Your task to perform on an android device: Show the shopping cart on costco. Add energizer triple a to the cart on costco Image 0: 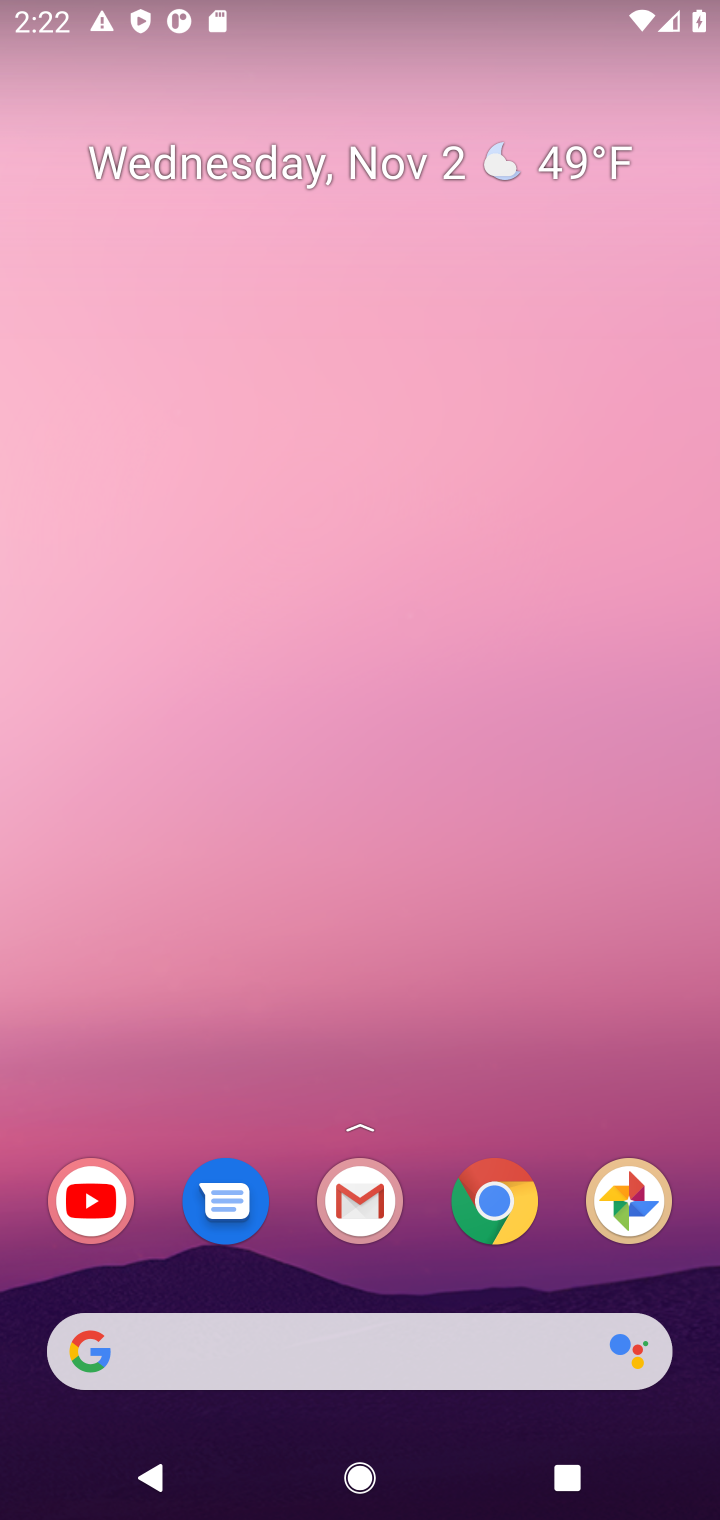
Step 0: click (476, 1216)
Your task to perform on an android device: Show the shopping cart on costco. Add energizer triple a to the cart on costco Image 1: 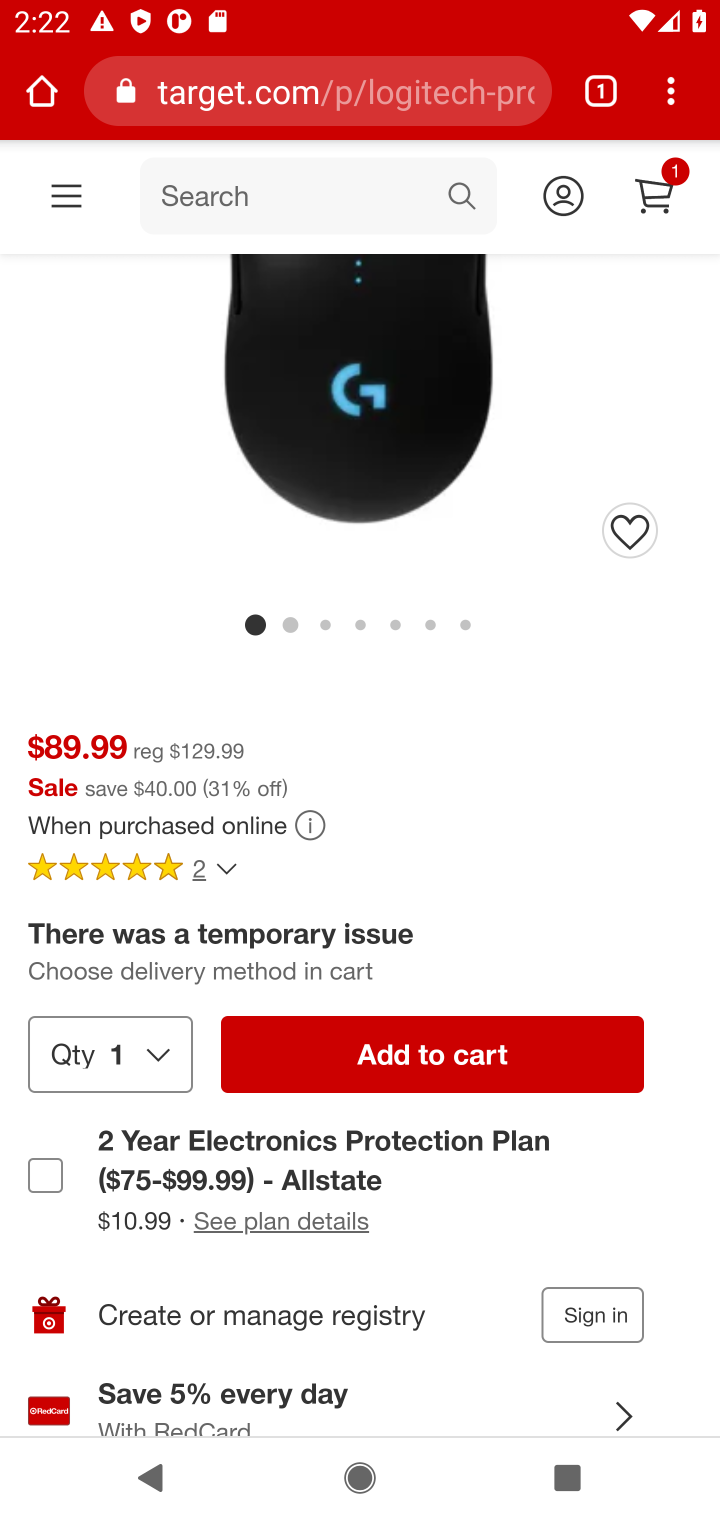
Step 1: click (372, 102)
Your task to perform on an android device: Show the shopping cart on costco. Add energizer triple a to the cart on costco Image 2: 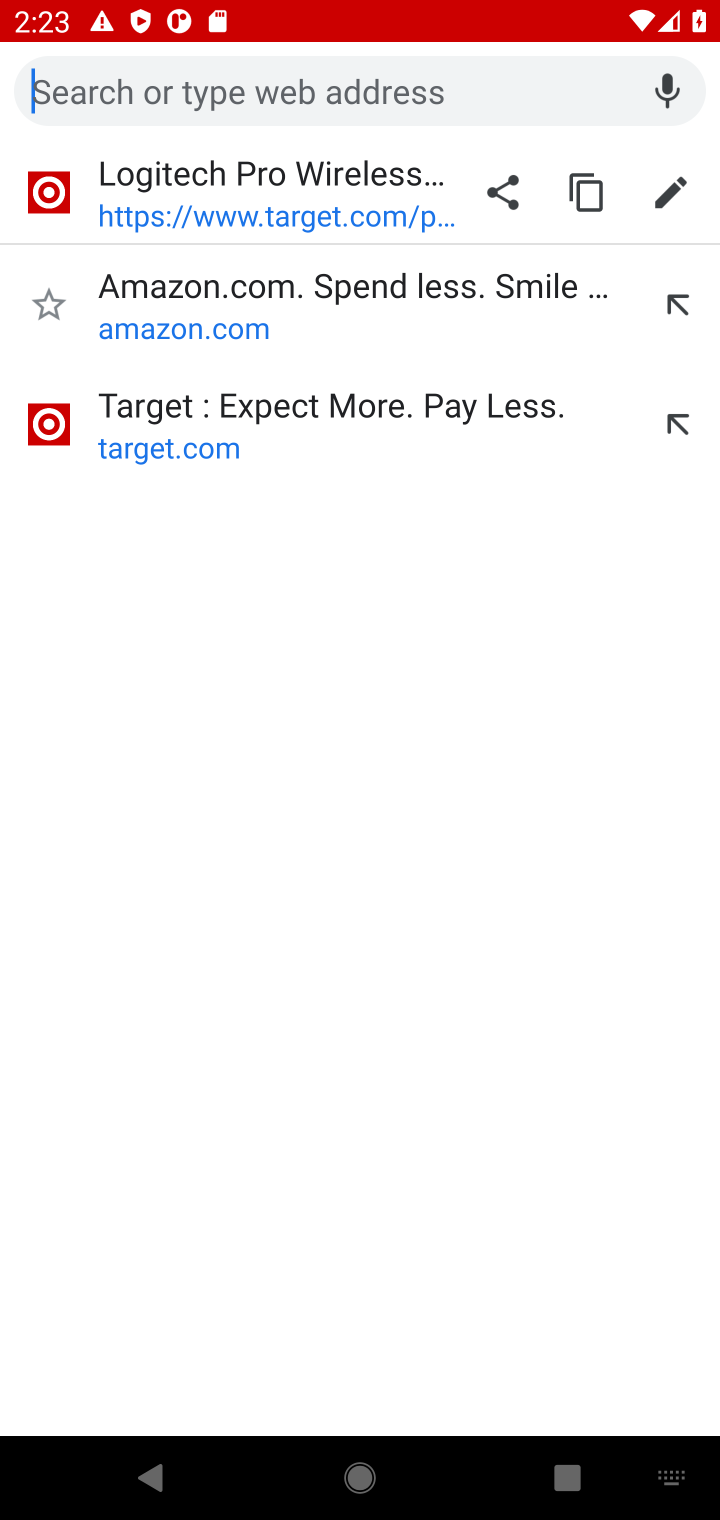
Step 2: type "costco"
Your task to perform on an android device: Show the shopping cart on costco. Add energizer triple a to the cart on costco Image 3: 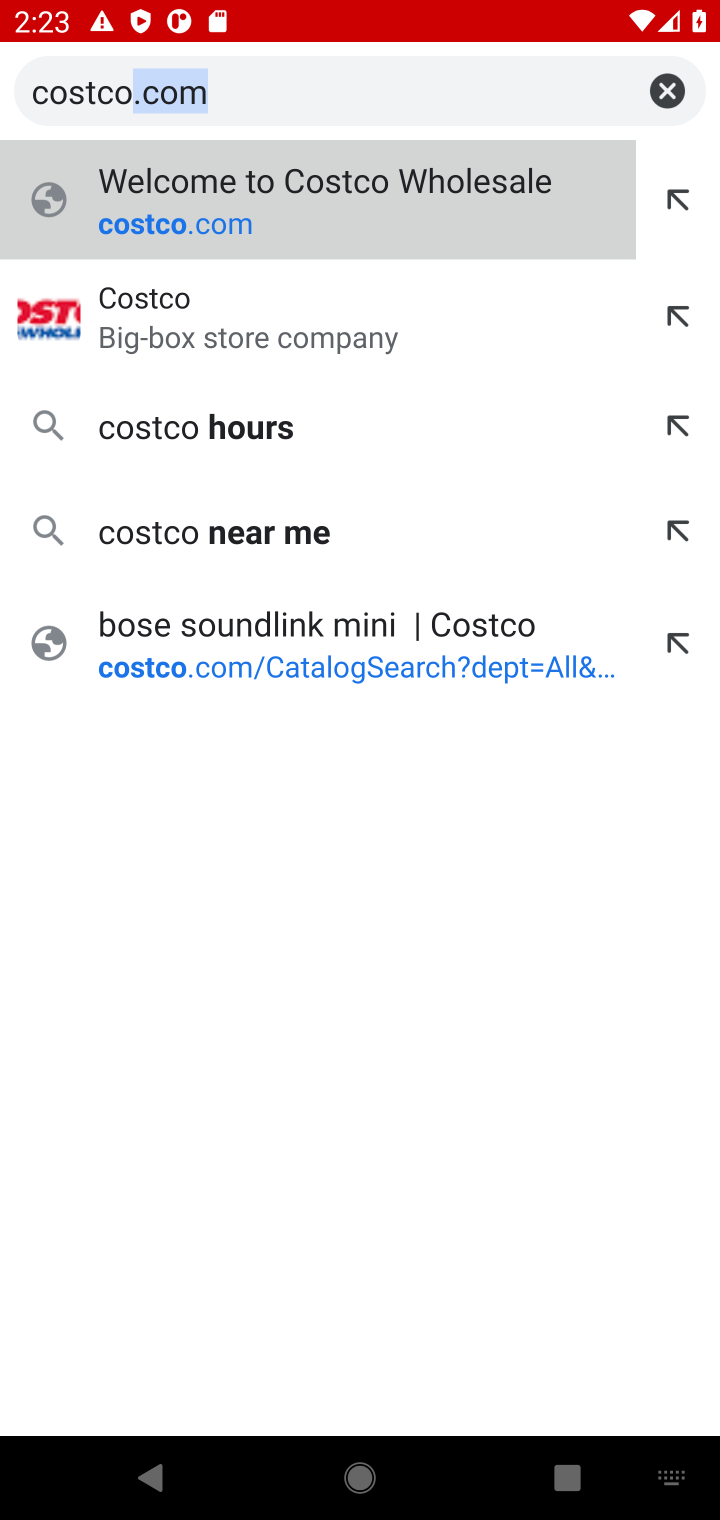
Step 3: press enter
Your task to perform on an android device: Show the shopping cart on costco. Add energizer triple a to the cart on costco Image 4: 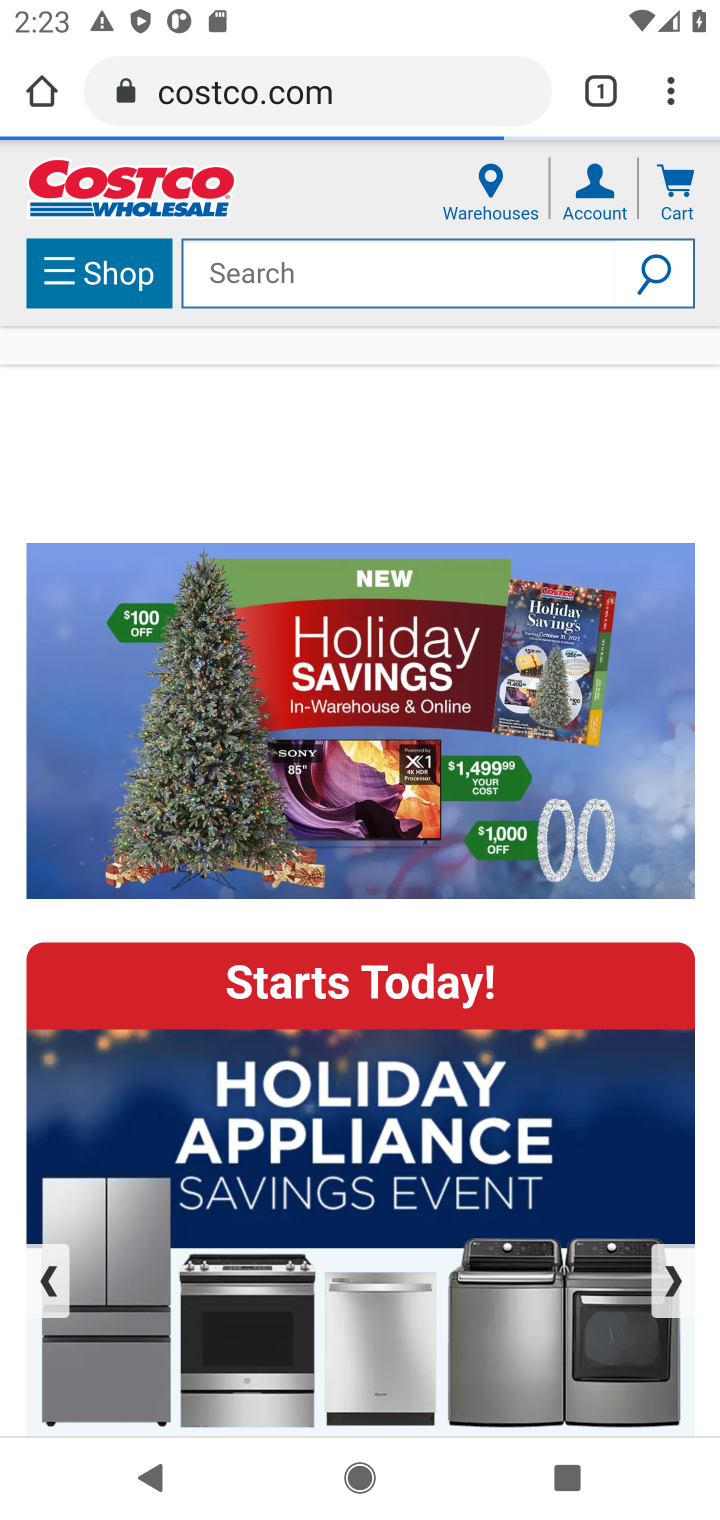
Step 4: click (328, 270)
Your task to perform on an android device: Show the shopping cart on costco. Add energizer triple a to the cart on costco Image 5: 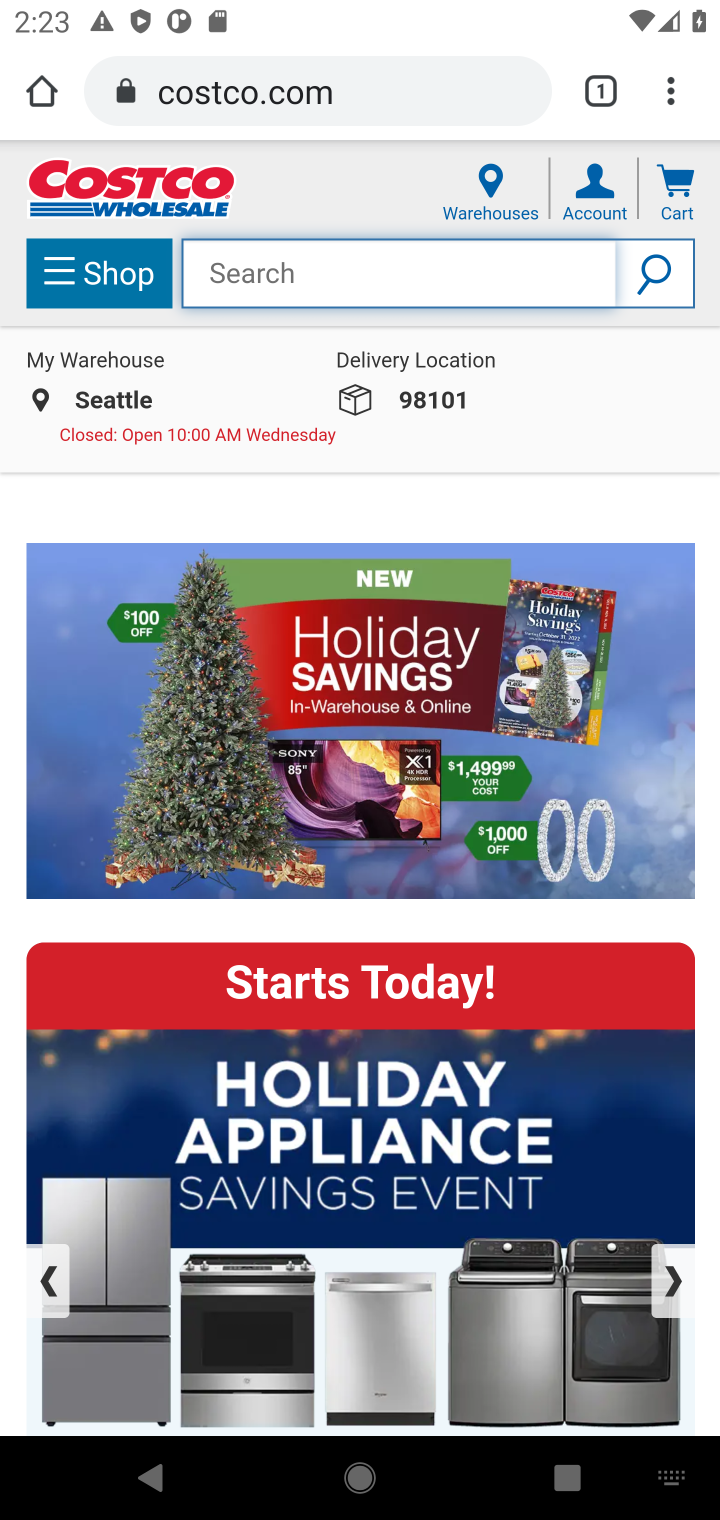
Step 5: press enter
Your task to perform on an android device: Show the shopping cart on costco. Add energizer triple a to the cart on costco Image 6: 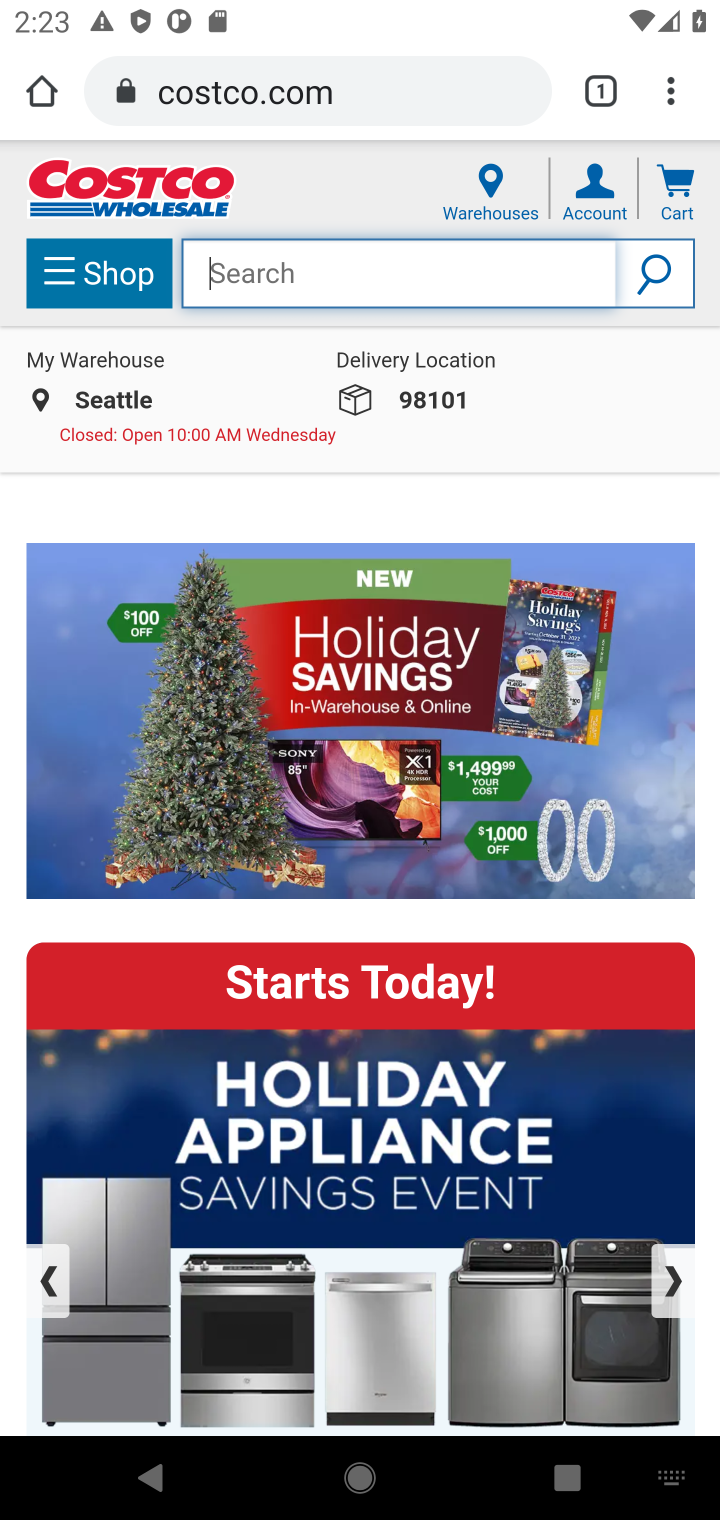
Step 6: type "energizer triple a"
Your task to perform on an android device: Show the shopping cart on costco. Add energizer triple a to the cart on costco Image 7: 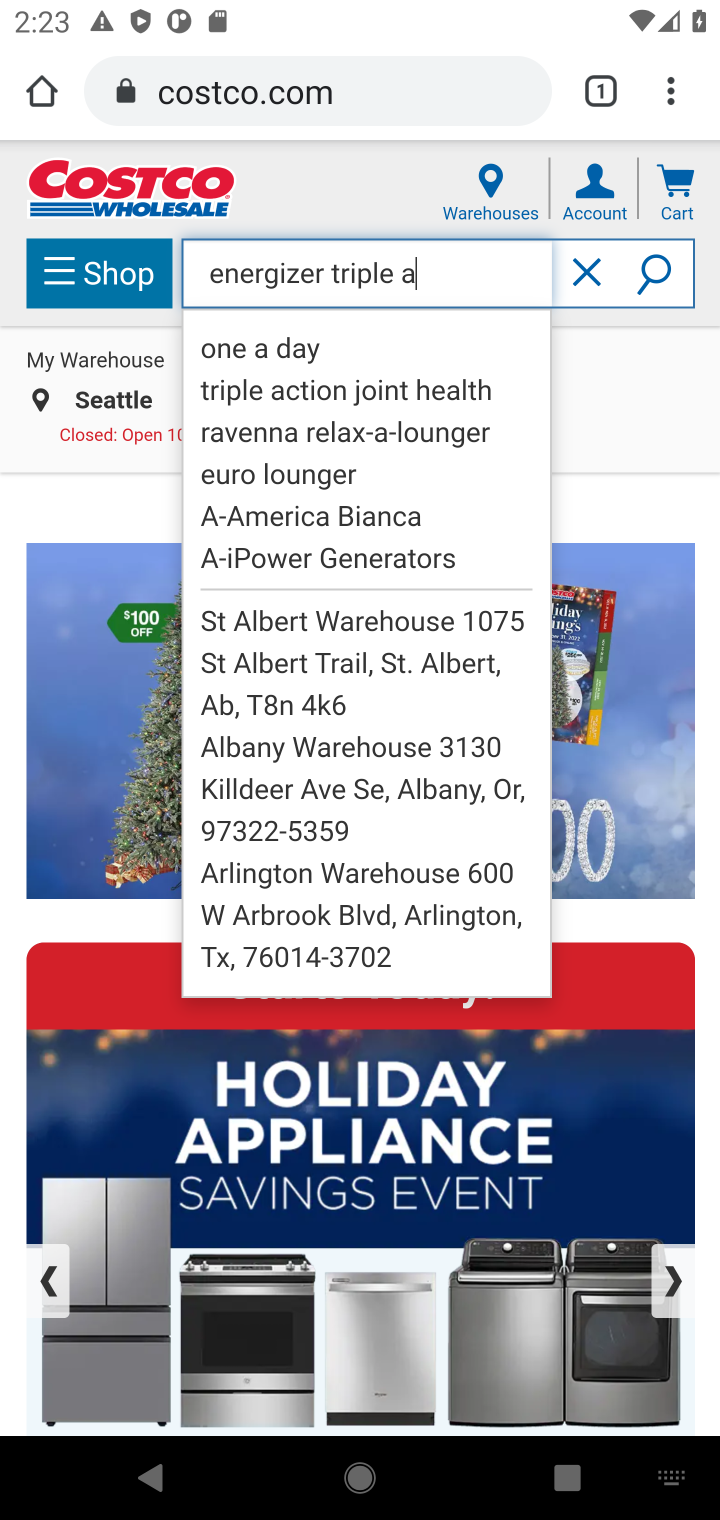
Step 7: press enter
Your task to perform on an android device: Show the shopping cart on costco. Add energizer triple a to the cart on costco Image 8: 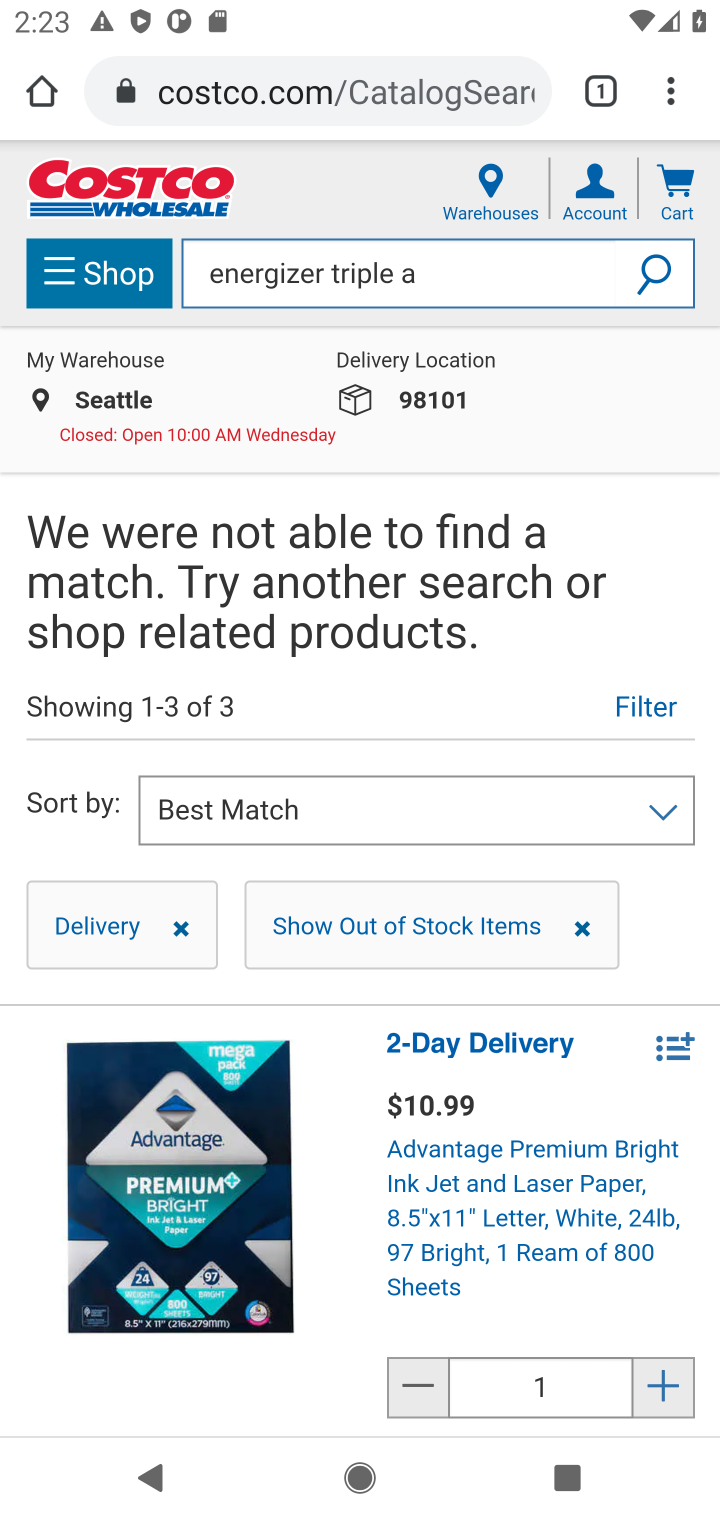
Step 8: task complete